Your task to perform on an android device: Go to battery settings Image 0: 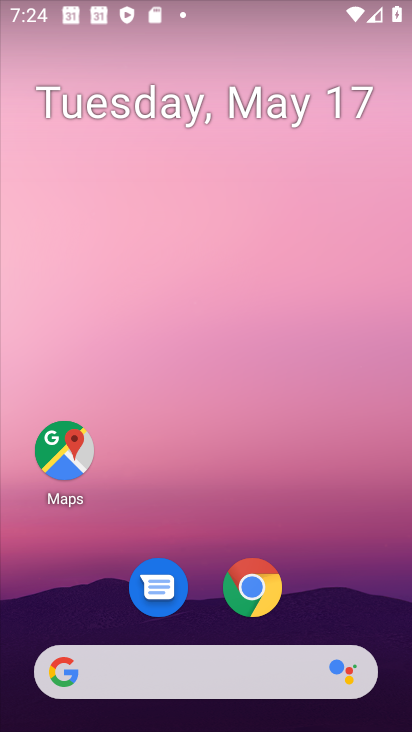
Step 0: drag from (291, 656) to (308, 230)
Your task to perform on an android device: Go to battery settings Image 1: 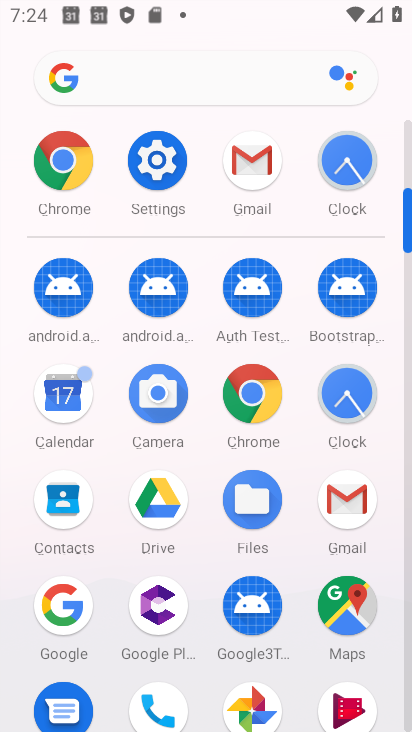
Step 1: click (137, 146)
Your task to perform on an android device: Go to battery settings Image 2: 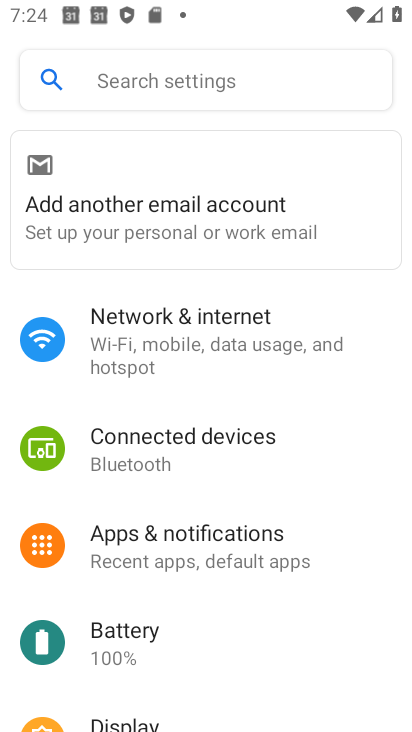
Step 2: click (132, 660)
Your task to perform on an android device: Go to battery settings Image 3: 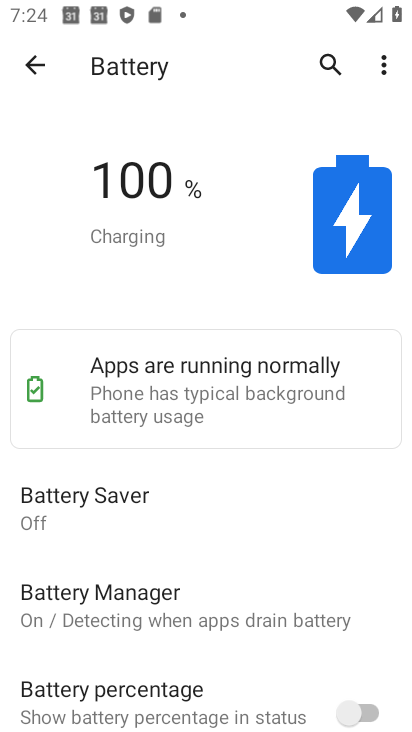
Step 3: task complete